Your task to perform on an android device: Open calendar and show me the second week of next month Image 0: 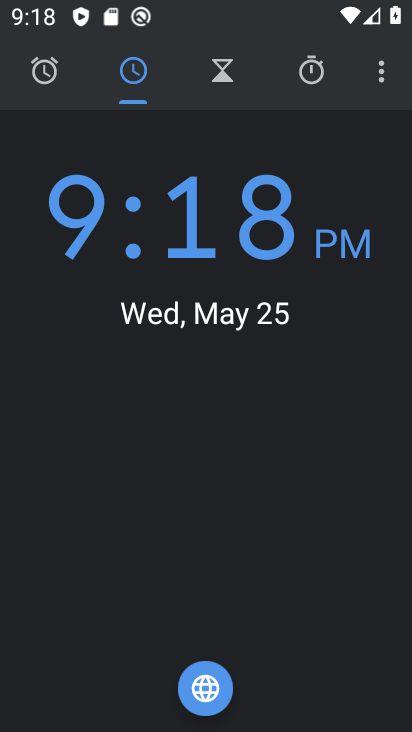
Step 0: press home button
Your task to perform on an android device: Open calendar and show me the second week of next month Image 1: 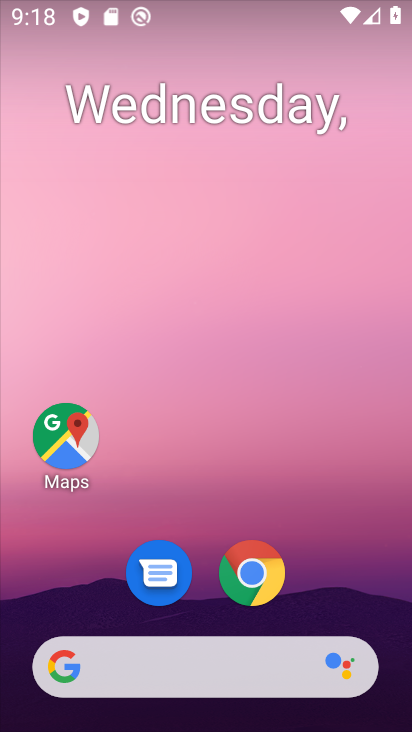
Step 1: drag from (360, 555) to (385, 163)
Your task to perform on an android device: Open calendar and show me the second week of next month Image 2: 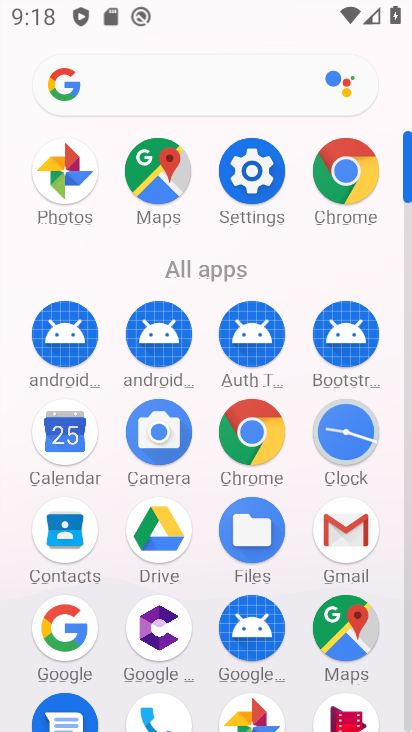
Step 2: click (64, 430)
Your task to perform on an android device: Open calendar and show me the second week of next month Image 3: 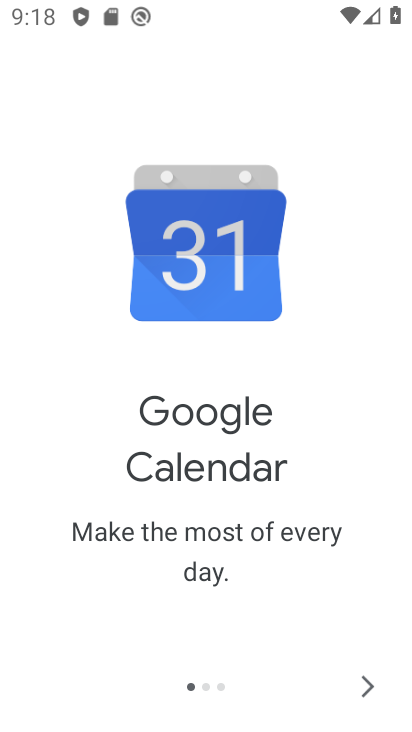
Step 3: click (357, 685)
Your task to perform on an android device: Open calendar and show me the second week of next month Image 4: 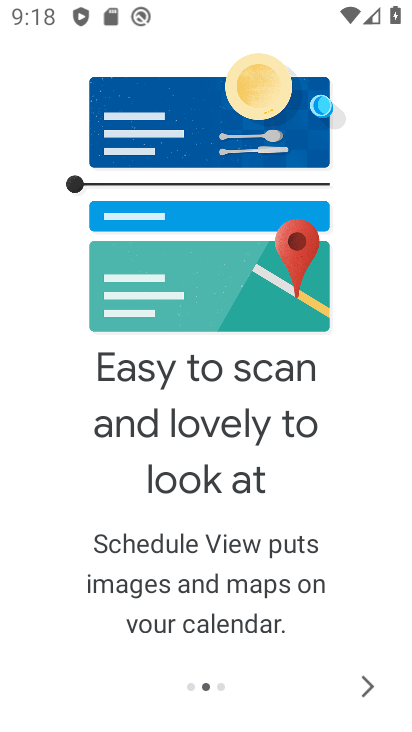
Step 4: click (356, 676)
Your task to perform on an android device: Open calendar and show me the second week of next month Image 5: 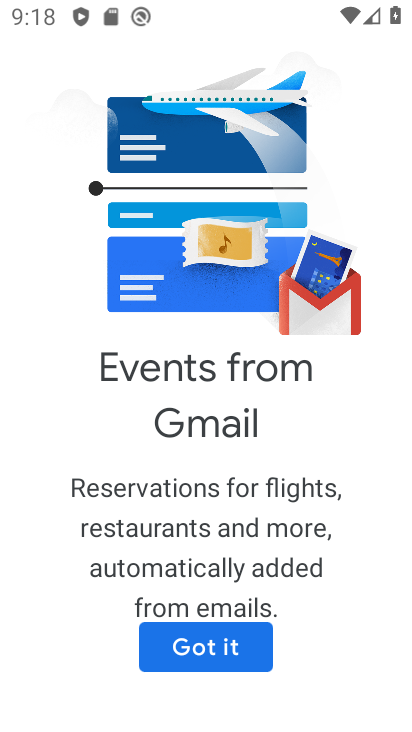
Step 5: click (356, 676)
Your task to perform on an android device: Open calendar and show me the second week of next month Image 6: 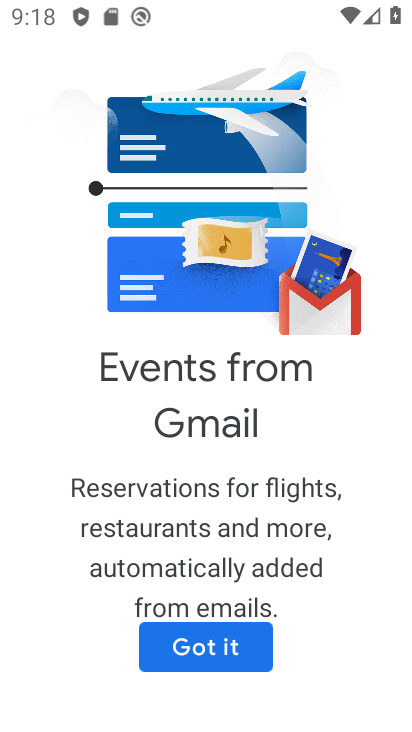
Step 6: click (232, 643)
Your task to perform on an android device: Open calendar and show me the second week of next month Image 7: 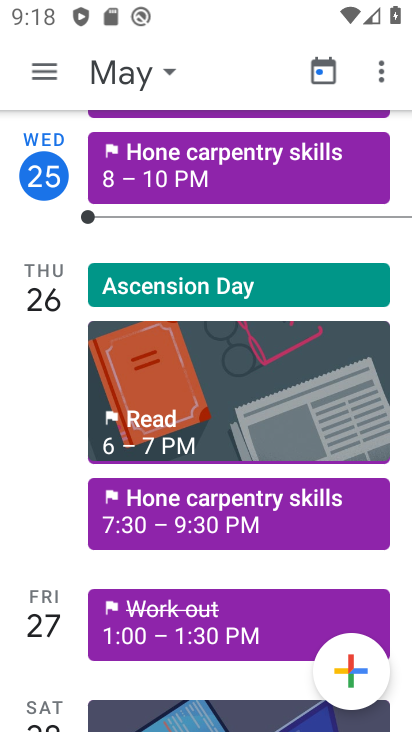
Step 7: click (39, 66)
Your task to perform on an android device: Open calendar and show me the second week of next month Image 8: 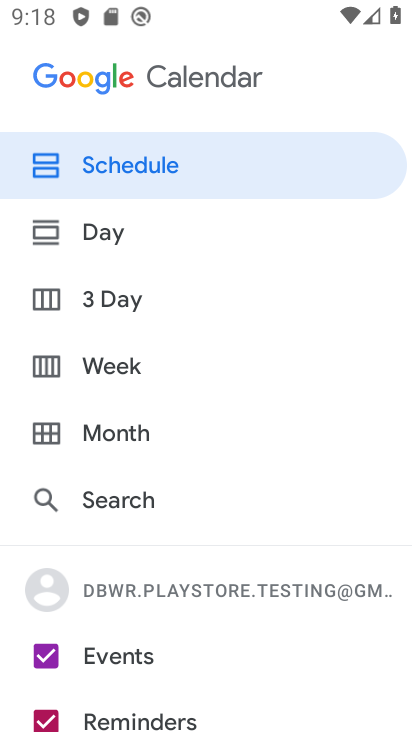
Step 8: click (129, 436)
Your task to perform on an android device: Open calendar and show me the second week of next month Image 9: 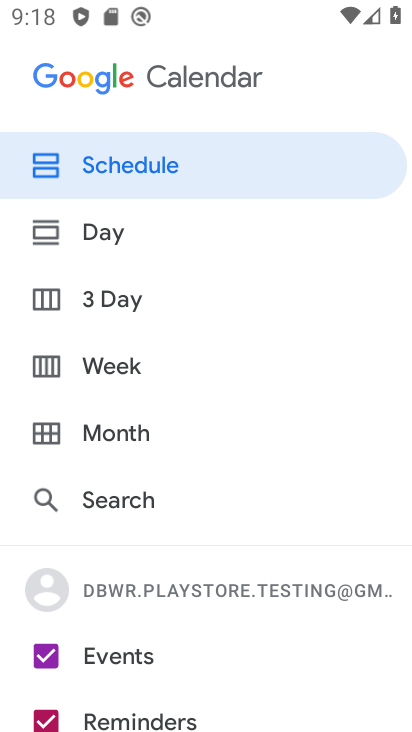
Step 9: click (109, 434)
Your task to perform on an android device: Open calendar and show me the second week of next month Image 10: 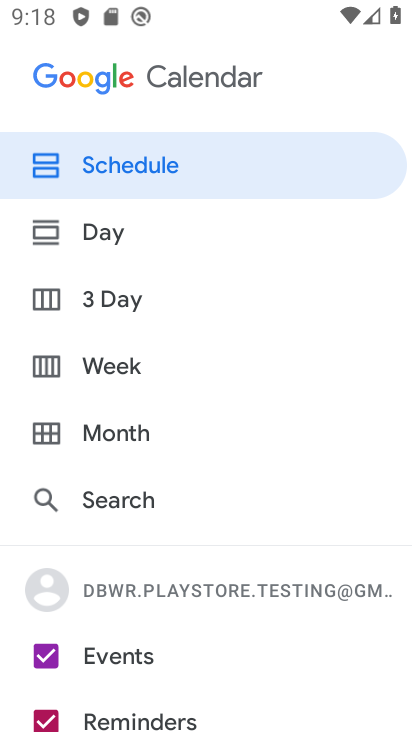
Step 10: click (122, 425)
Your task to perform on an android device: Open calendar and show me the second week of next month Image 11: 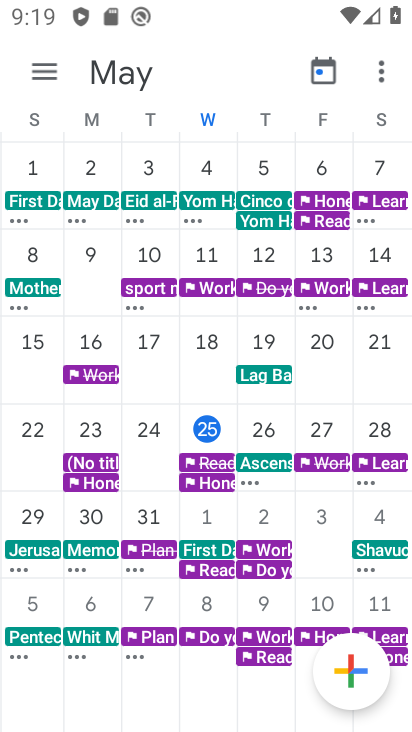
Step 11: task complete